Your task to perform on an android device: Go to notification settings Image 0: 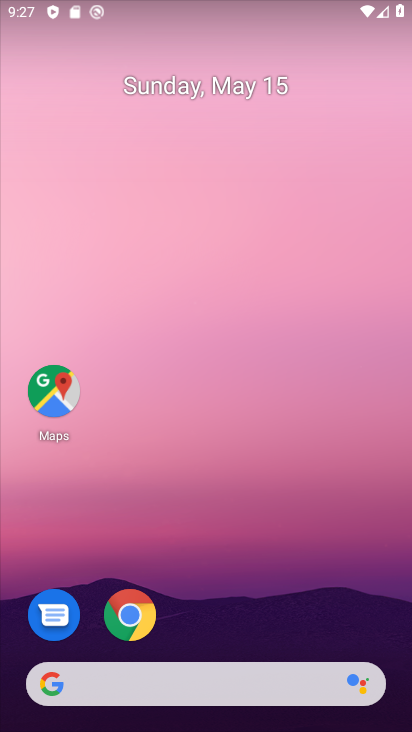
Step 0: drag from (220, 650) to (298, 173)
Your task to perform on an android device: Go to notification settings Image 1: 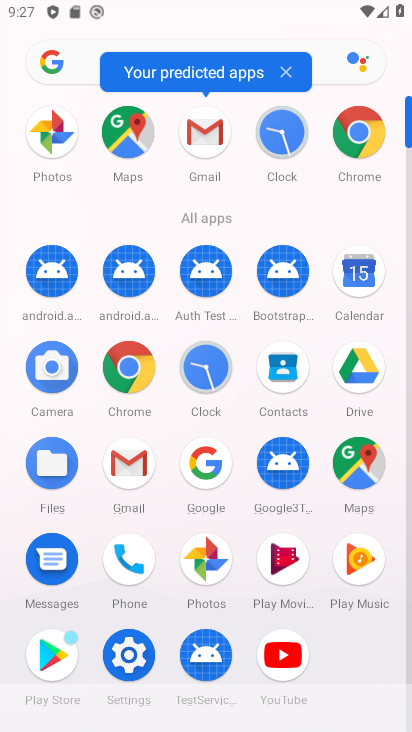
Step 1: click (119, 654)
Your task to perform on an android device: Go to notification settings Image 2: 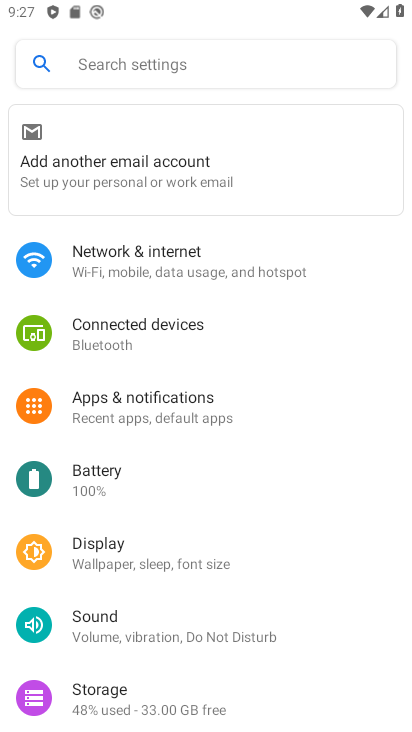
Step 2: click (208, 412)
Your task to perform on an android device: Go to notification settings Image 3: 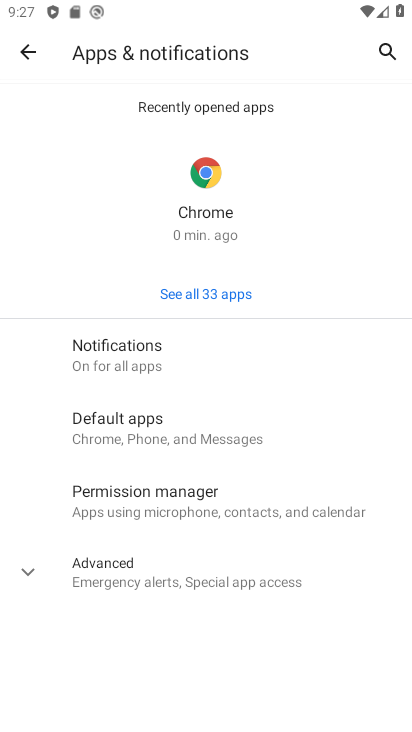
Step 3: click (180, 373)
Your task to perform on an android device: Go to notification settings Image 4: 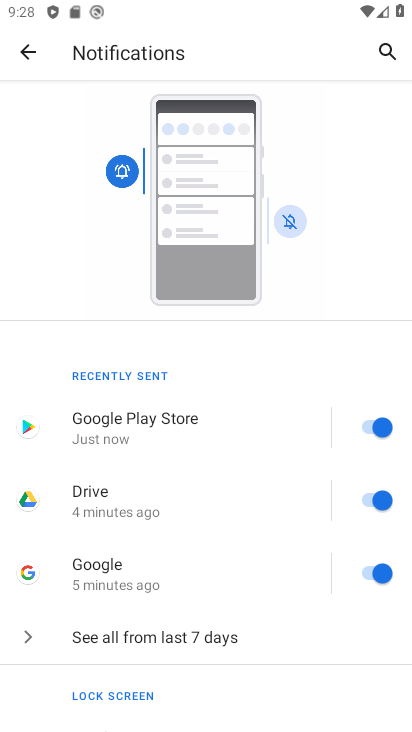
Step 4: task complete